Your task to perform on an android device: Go to settings Image 0: 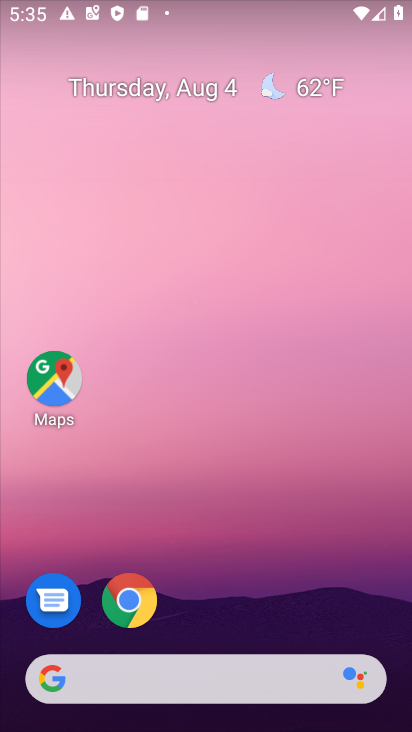
Step 0: drag from (229, 637) to (254, 12)
Your task to perform on an android device: Go to settings Image 1: 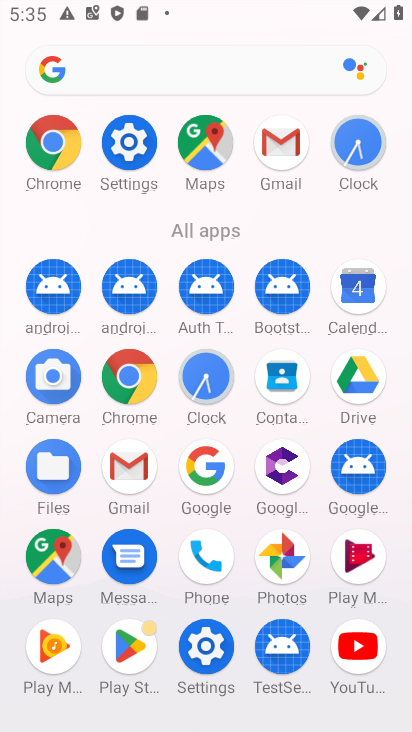
Step 1: click (128, 133)
Your task to perform on an android device: Go to settings Image 2: 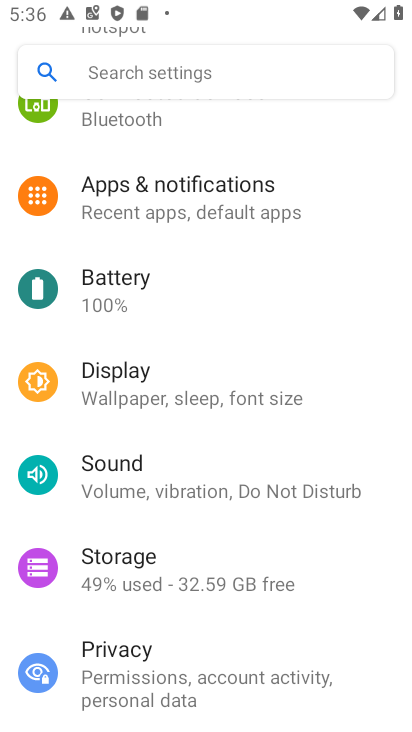
Step 2: task complete